Your task to perform on an android device: change your default location settings in chrome Image 0: 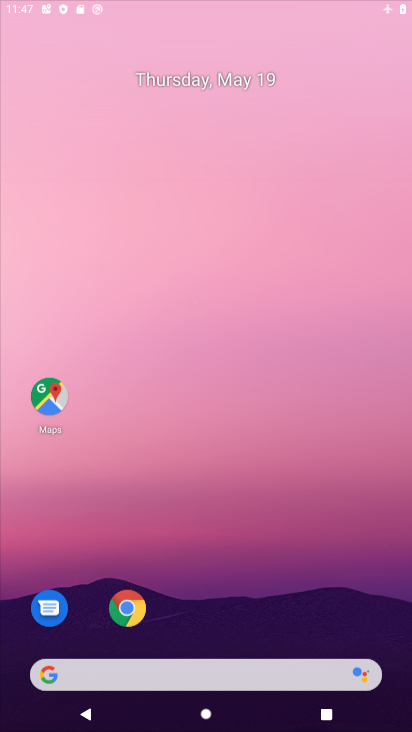
Step 0: drag from (349, 299) to (319, 47)
Your task to perform on an android device: change your default location settings in chrome Image 1: 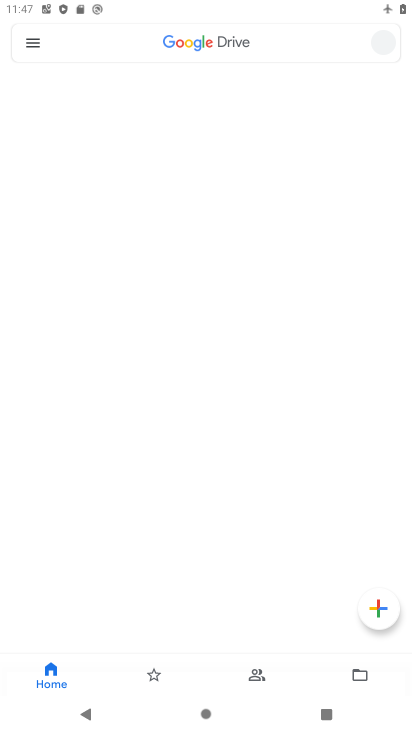
Step 1: press home button
Your task to perform on an android device: change your default location settings in chrome Image 2: 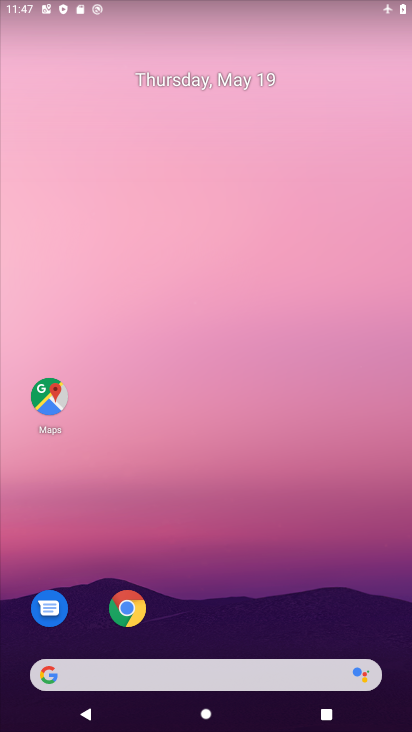
Step 2: drag from (345, 613) to (347, 63)
Your task to perform on an android device: change your default location settings in chrome Image 3: 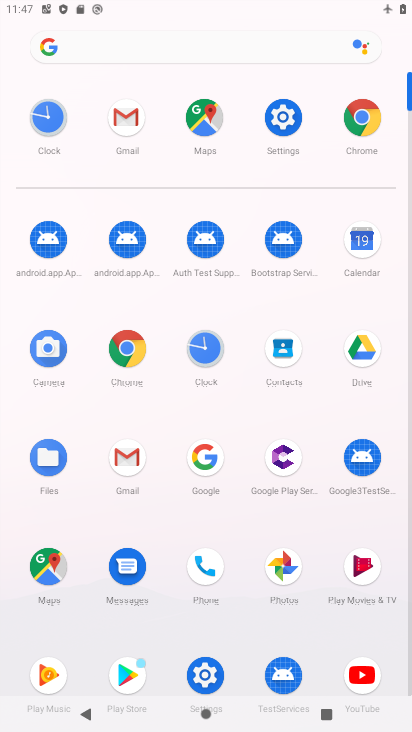
Step 3: click (125, 349)
Your task to perform on an android device: change your default location settings in chrome Image 4: 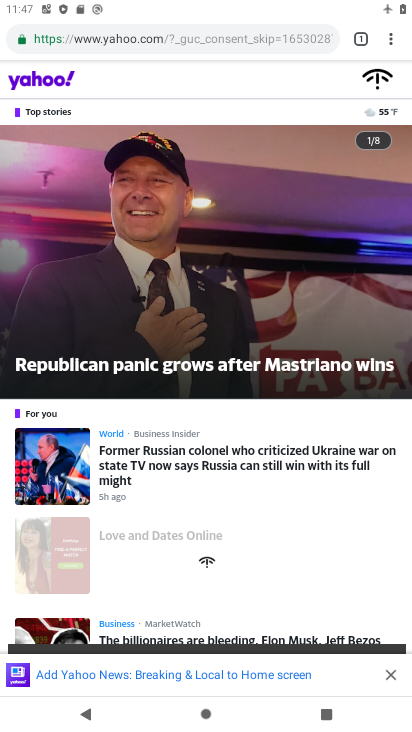
Step 4: click (393, 40)
Your task to perform on an android device: change your default location settings in chrome Image 5: 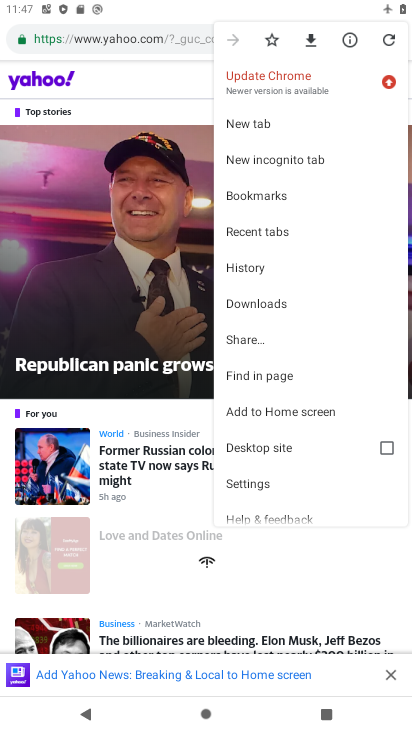
Step 5: click (260, 493)
Your task to perform on an android device: change your default location settings in chrome Image 6: 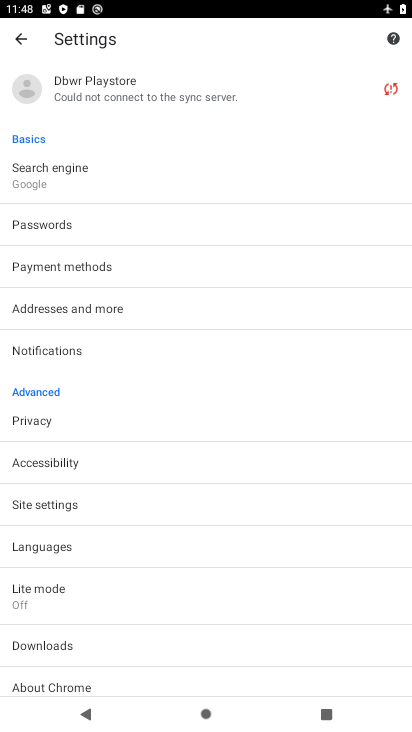
Step 6: drag from (238, 590) to (233, 457)
Your task to perform on an android device: change your default location settings in chrome Image 7: 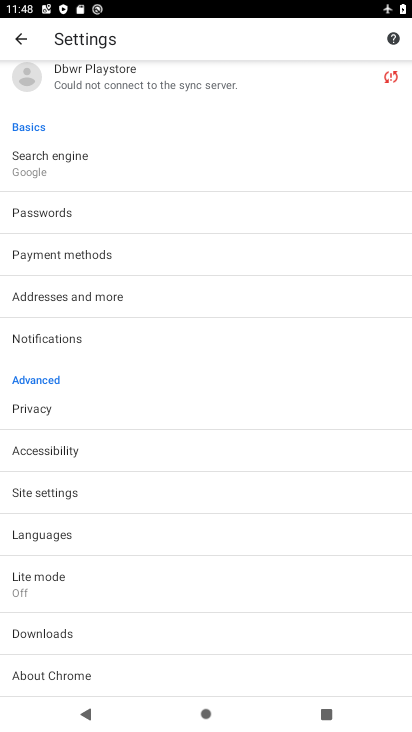
Step 7: click (176, 488)
Your task to perform on an android device: change your default location settings in chrome Image 8: 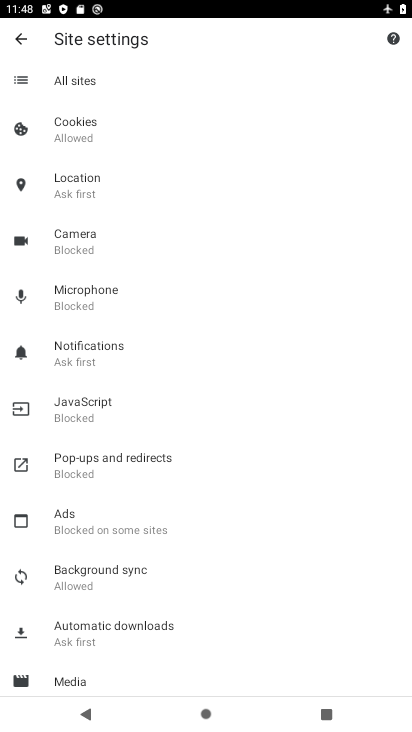
Step 8: drag from (262, 570) to (268, 416)
Your task to perform on an android device: change your default location settings in chrome Image 9: 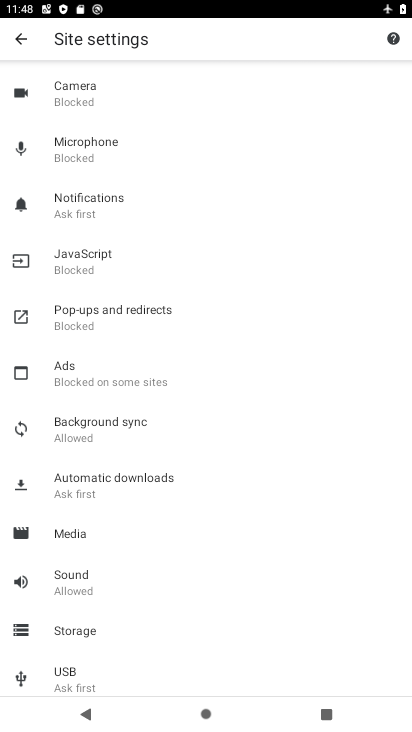
Step 9: drag from (264, 558) to (273, 408)
Your task to perform on an android device: change your default location settings in chrome Image 10: 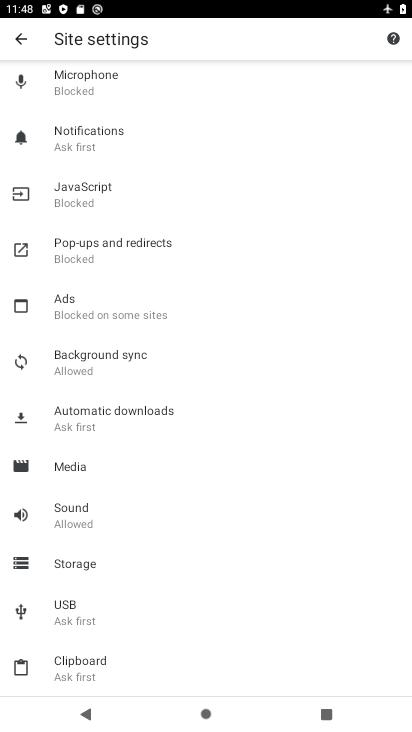
Step 10: drag from (264, 611) to (270, 481)
Your task to perform on an android device: change your default location settings in chrome Image 11: 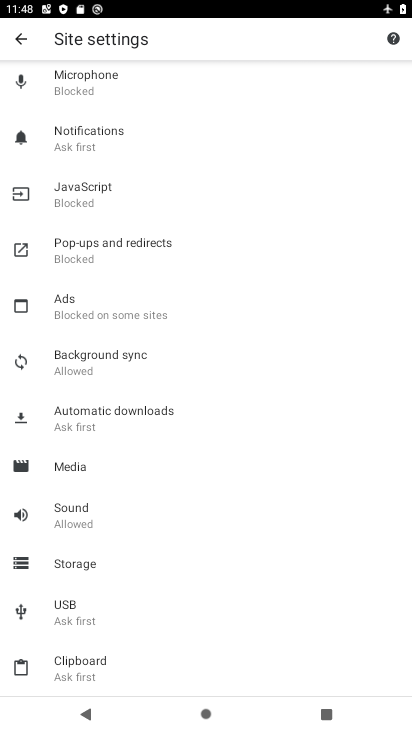
Step 11: drag from (270, 307) to (271, 464)
Your task to perform on an android device: change your default location settings in chrome Image 12: 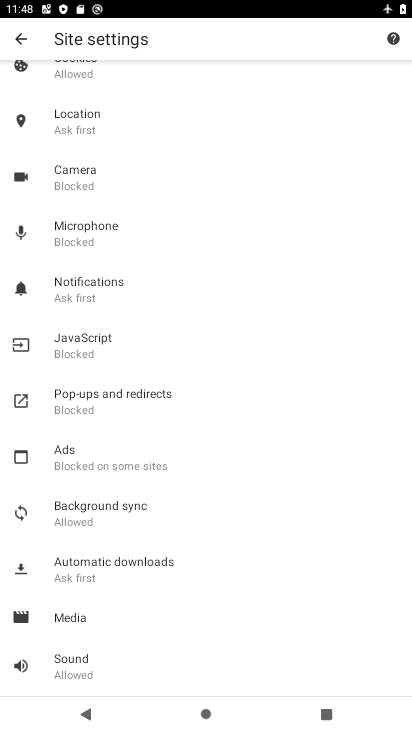
Step 12: drag from (268, 318) to (269, 385)
Your task to perform on an android device: change your default location settings in chrome Image 13: 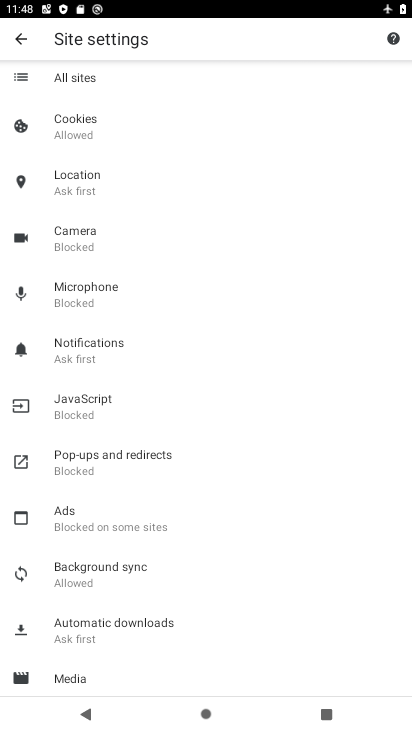
Step 13: click (110, 190)
Your task to perform on an android device: change your default location settings in chrome Image 14: 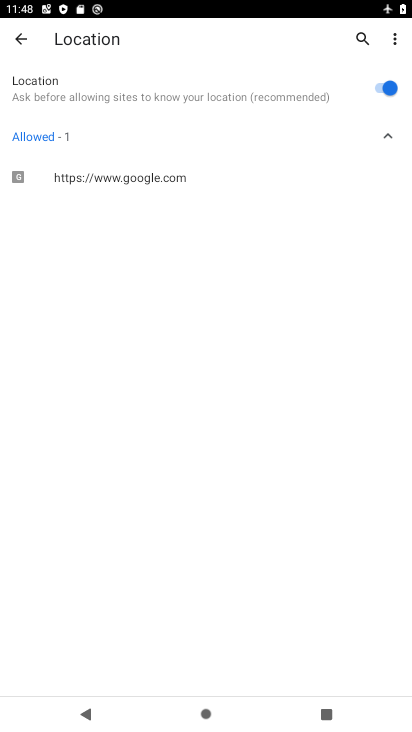
Step 14: click (377, 95)
Your task to perform on an android device: change your default location settings in chrome Image 15: 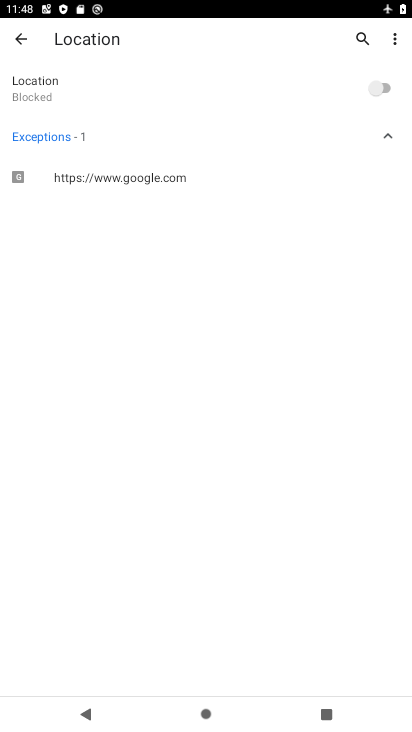
Step 15: task complete